Your task to perform on an android device: Go to Google Image 0: 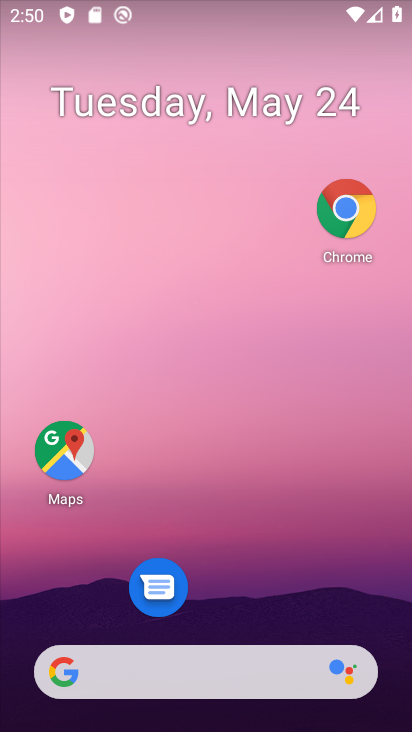
Step 0: press home button
Your task to perform on an android device: Go to Google Image 1: 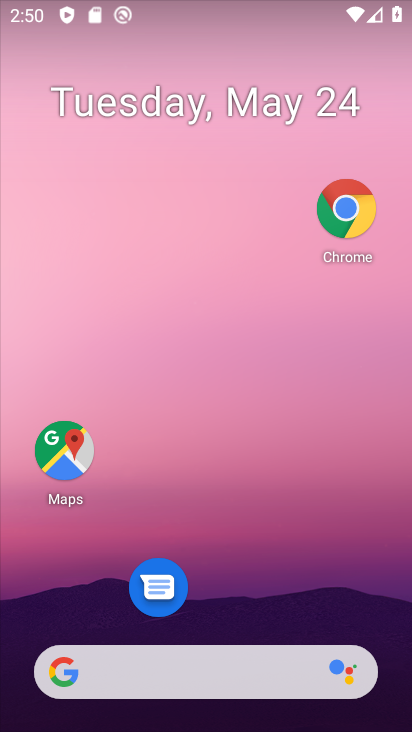
Step 1: drag from (99, 563) to (141, 227)
Your task to perform on an android device: Go to Google Image 2: 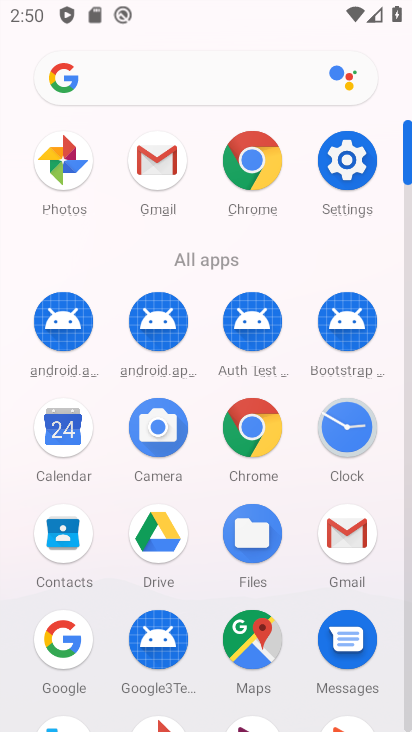
Step 2: click (67, 636)
Your task to perform on an android device: Go to Google Image 3: 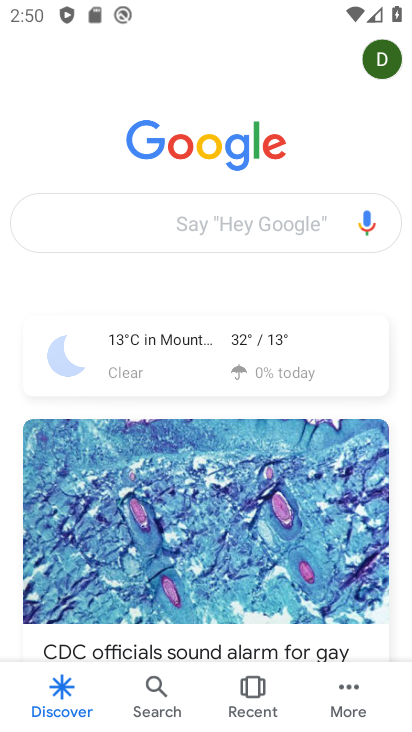
Step 3: task complete